Your task to perform on an android device: change the clock display to digital Image 0: 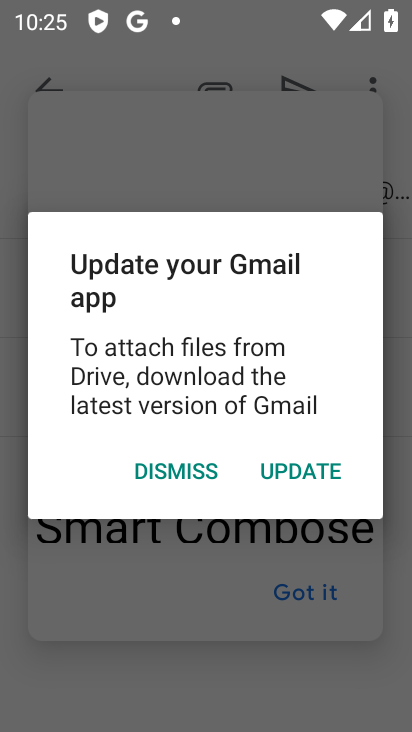
Step 0: press home button
Your task to perform on an android device: change the clock display to digital Image 1: 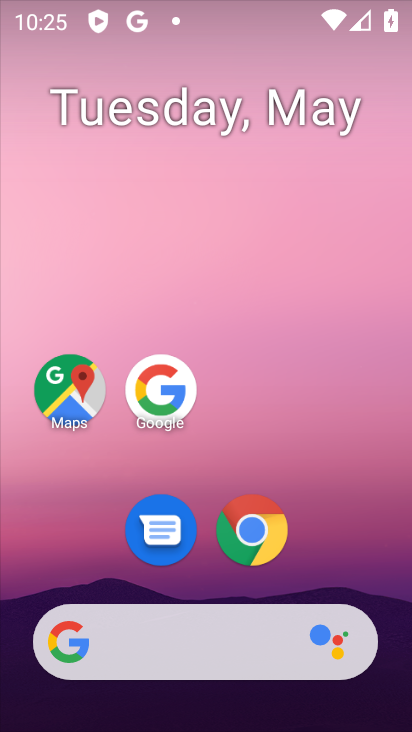
Step 1: drag from (283, 504) to (289, 108)
Your task to perform on an android device: change the clock display to digital Image 2: 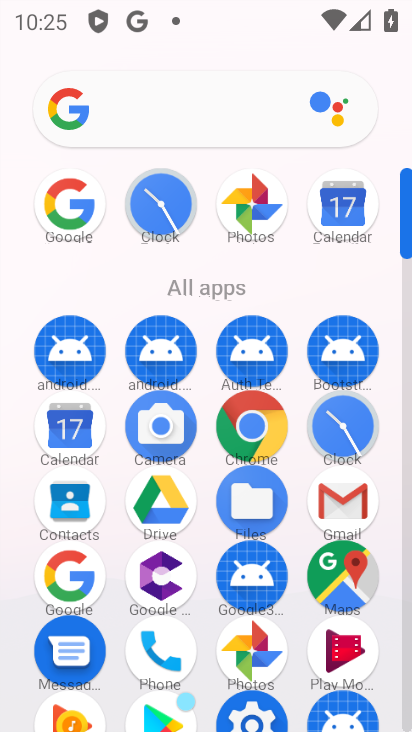
Step 2: drag from (337, 420) to (165, 223)
Your task to perform on an android device: change the clock display to digital Image 3: 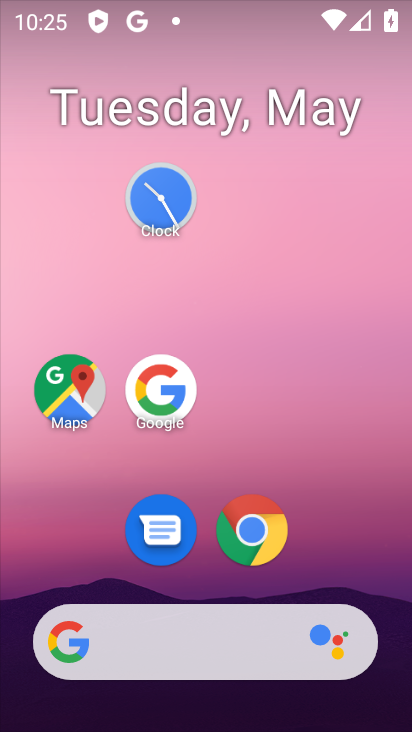
Step 3: click (164, 222)
Your task to perform on an android device: change the clock display to digital Image 4: 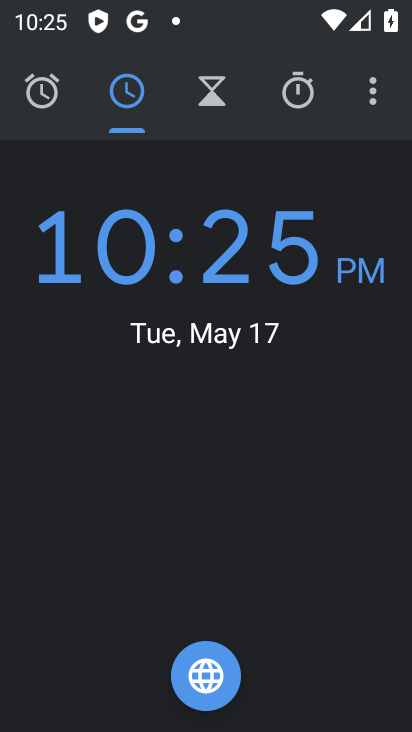
Step 4: click (383, 92)
Your task to perform on an android device: change the clock display to digital Image 5: 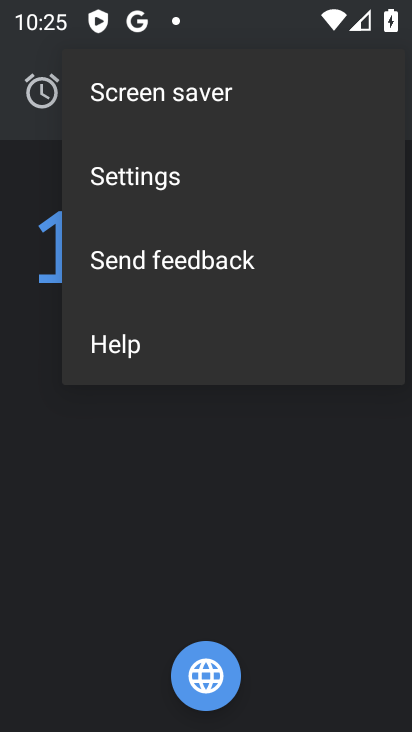
Step 5: click (150, 171)
Your task to perform on an android device: change the clock display to digital Image 6: 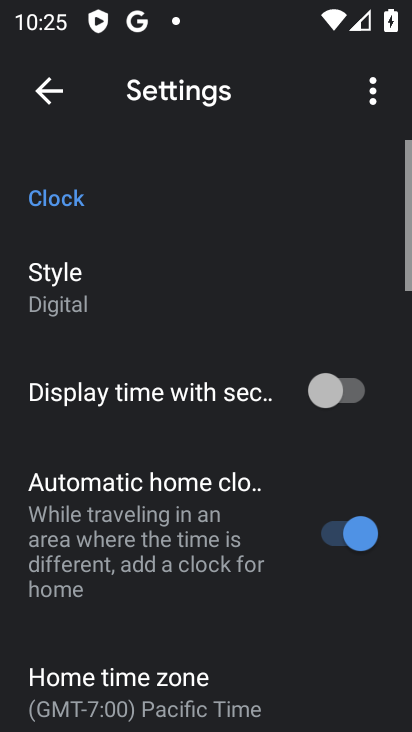
Step 6: task complete